Your task to perform on an android device: Empty the shopping cart on target.com. Image 0: 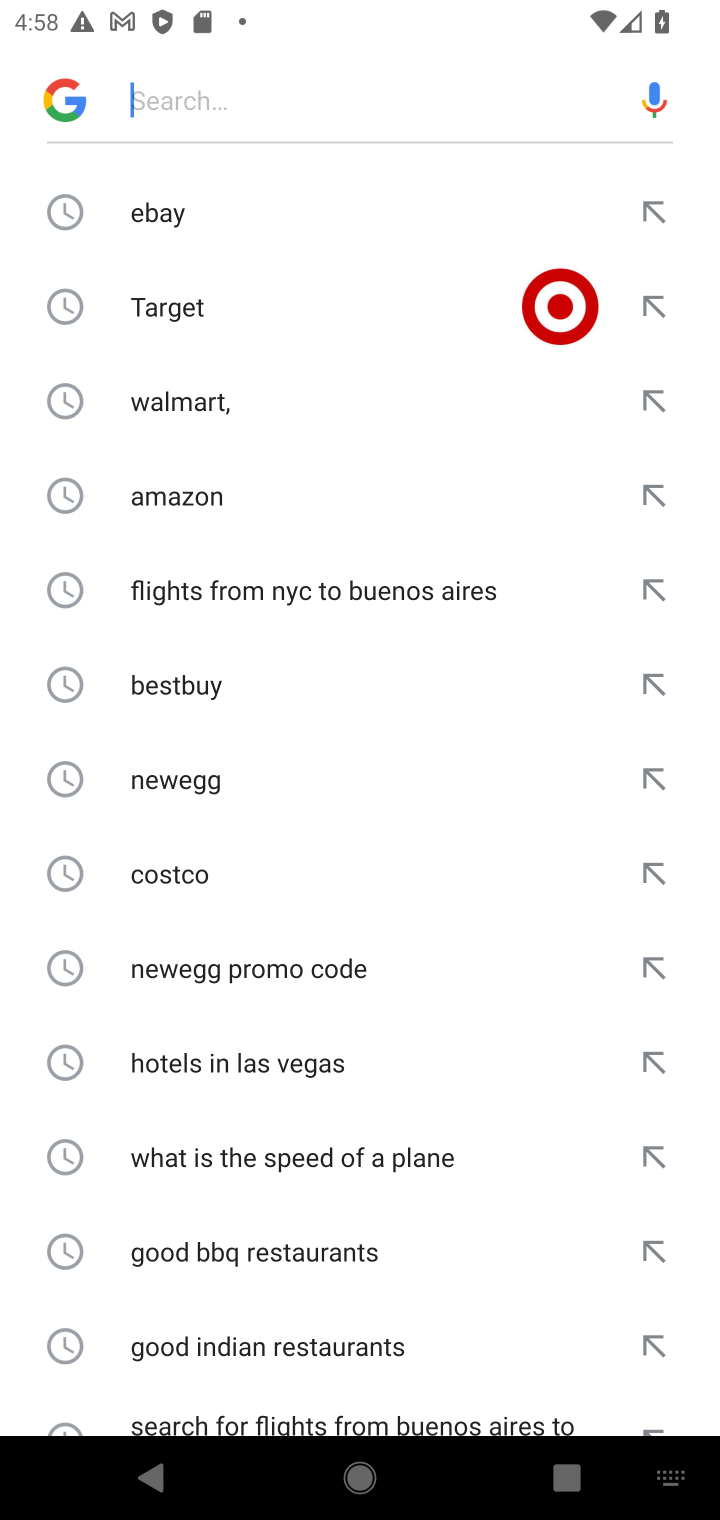
Step 0: press home button
Your task to perform on an android device: Empty the shopping cart on target.com. Image 1: 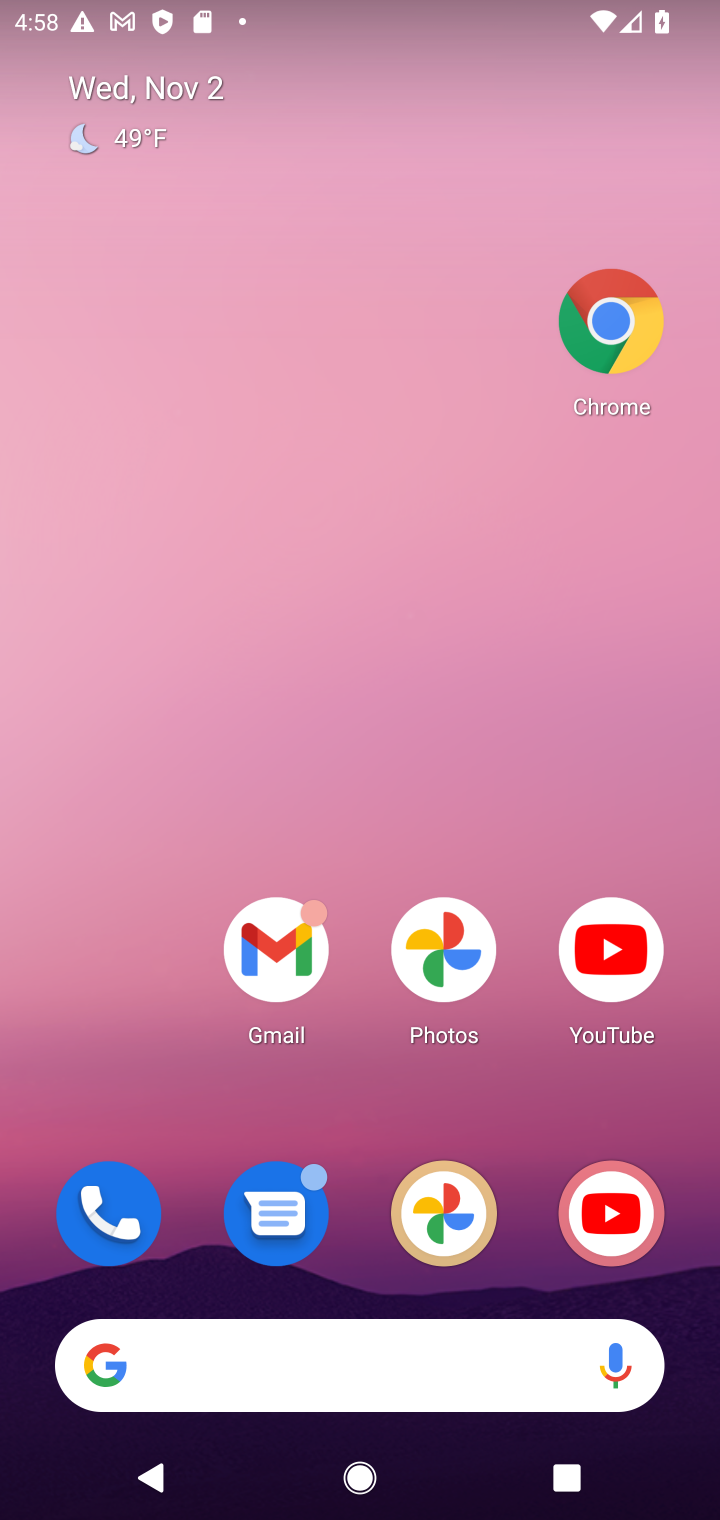
Step 1: drag from (383, 947) to (454, 58)
Your task to perform on an android device: Empty the shopping cart on target.com. Image 2: 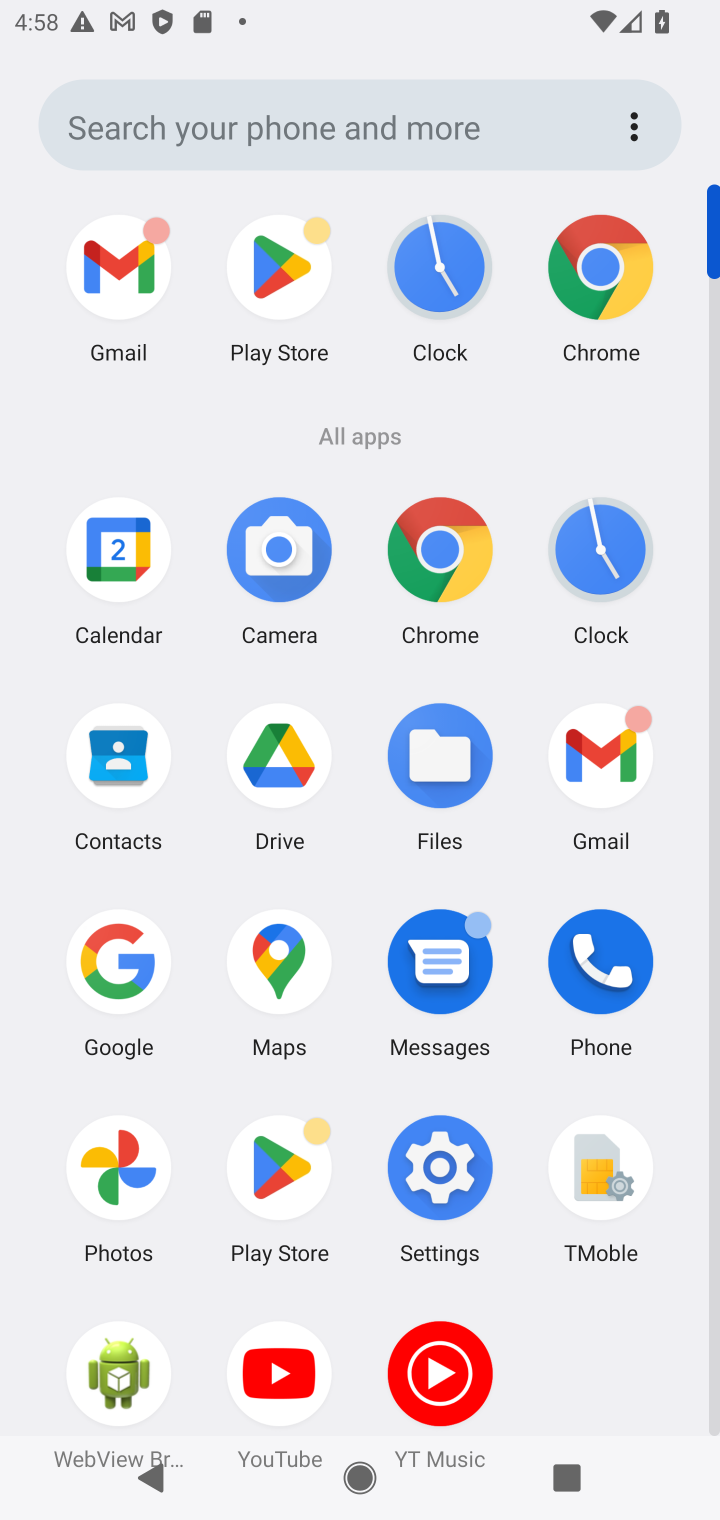
Step 2: click (95, 936)
Your task to perform on an android device: Empty the shopping cart on target.com. Image 3: 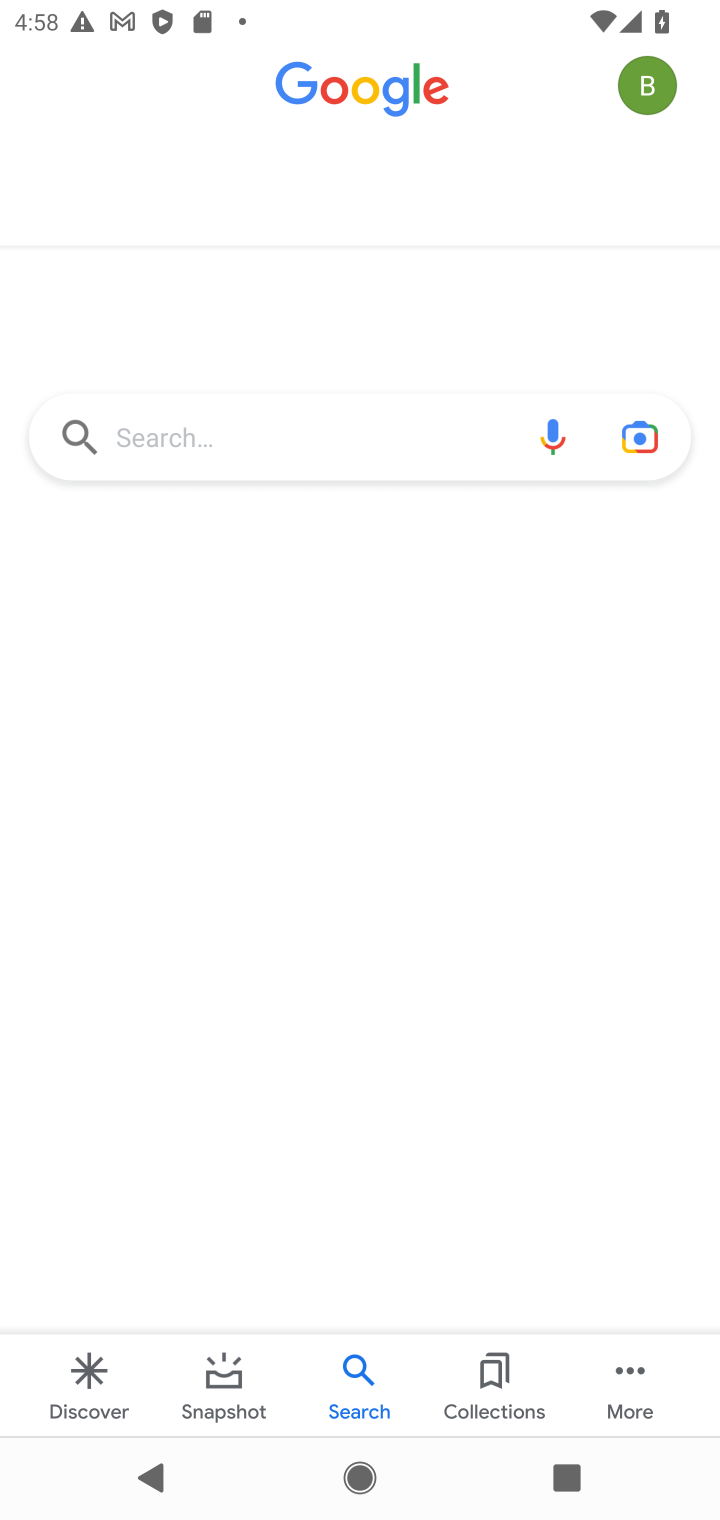
Step 3: click (355, 443)
Your task to perform on an android device: Empty the shopping cart on target.com. Image 4: 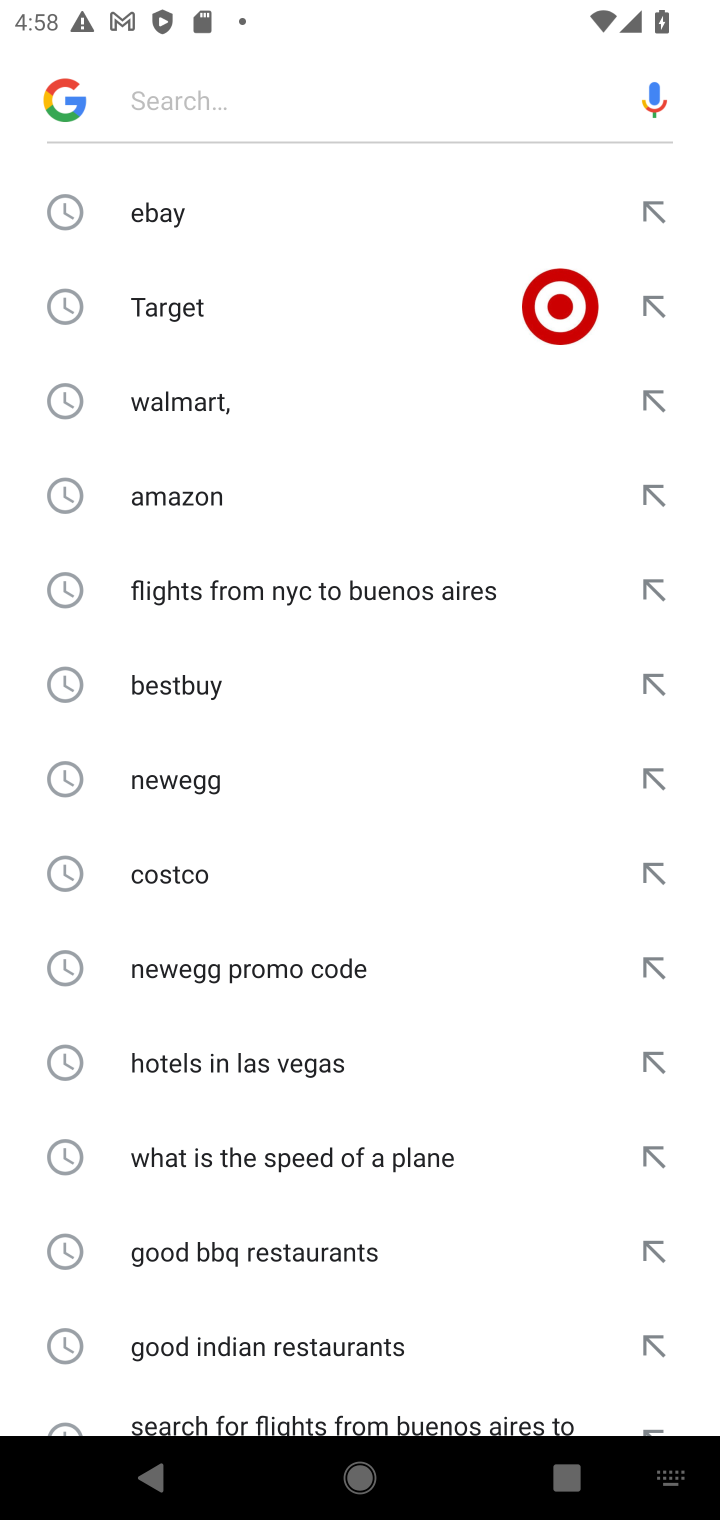
Step 4: type "target.com"
Your task to perform on an android device: Empty the shopping cart on target.com. Image 5: 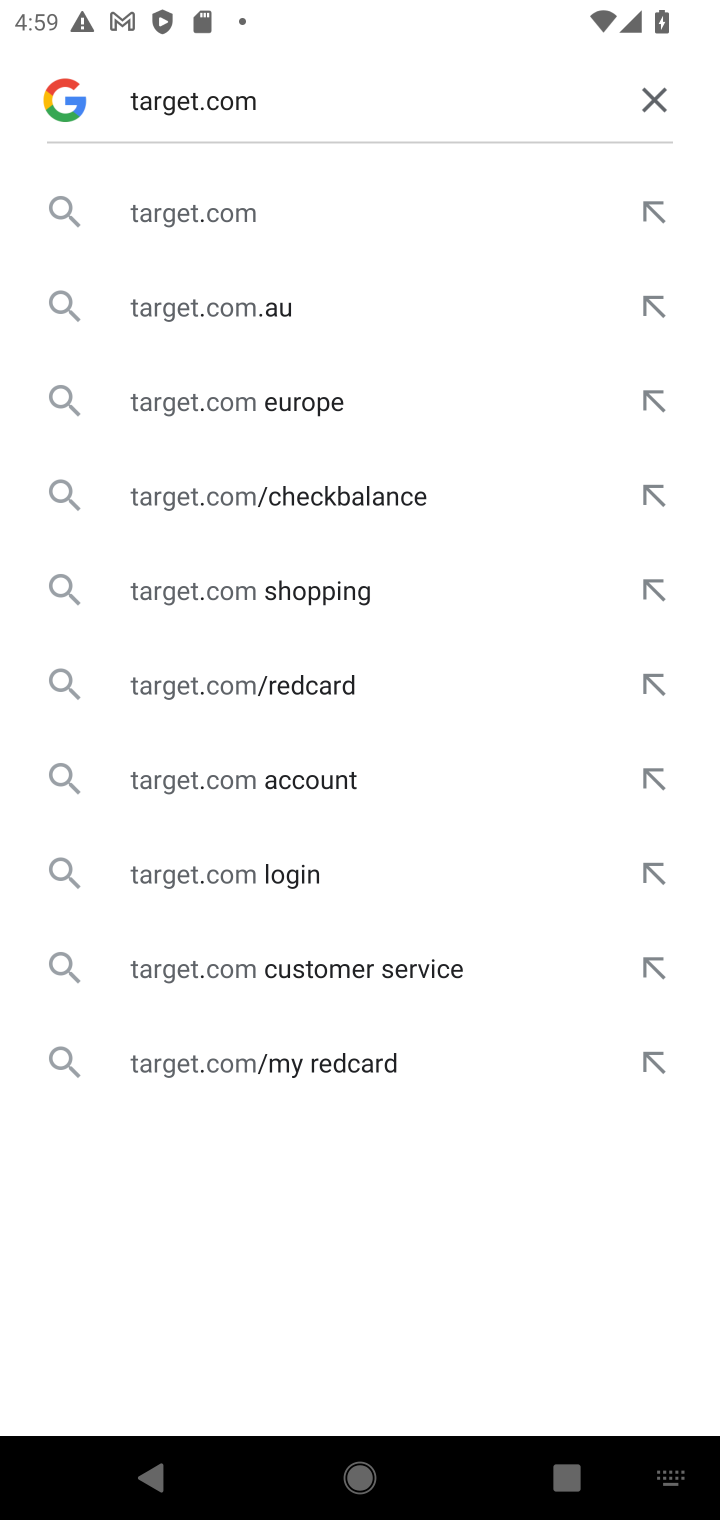
Step 5: click (304, 234)
Your task to perform on an android device: Empty the shopping cart on target.com. Image 6: 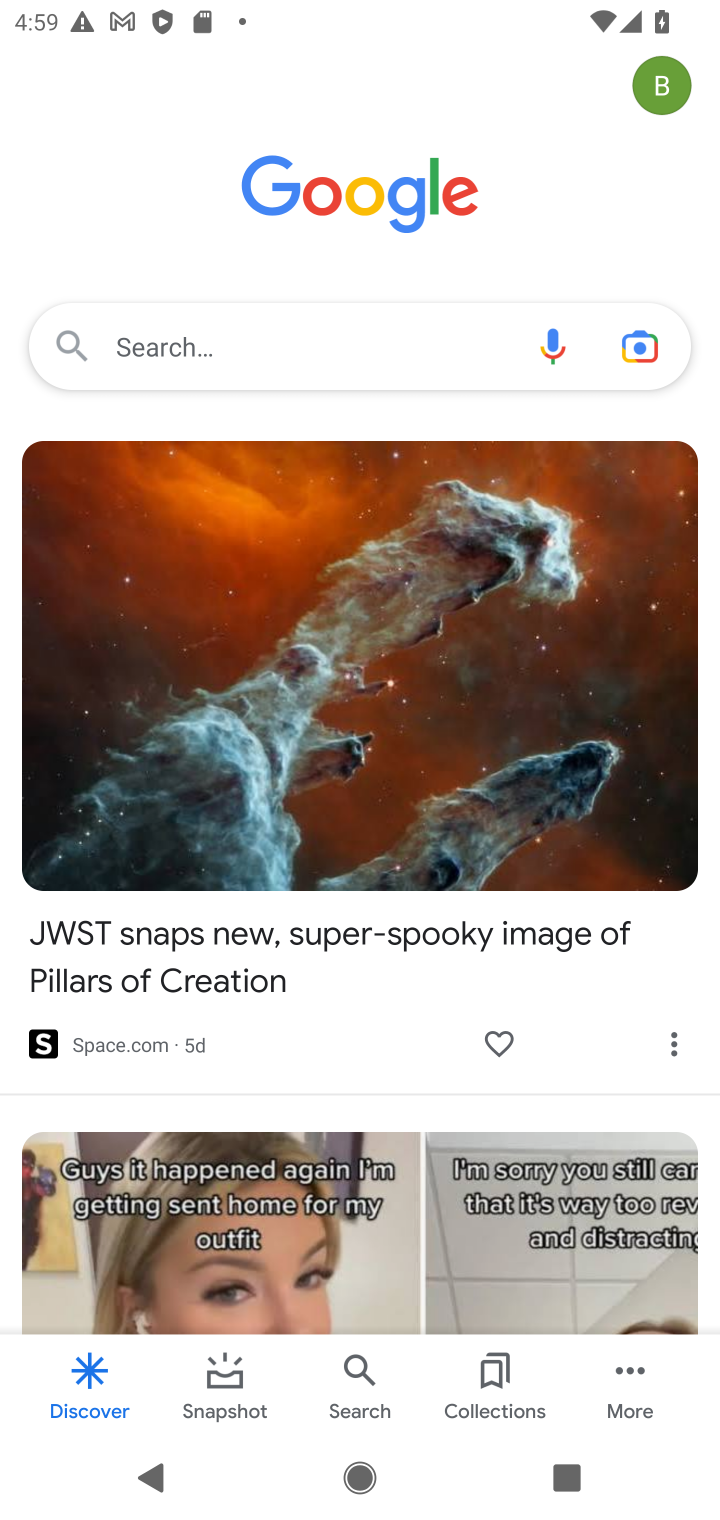
Step 6: click (235, 371)
Your task to perform on an android device: Empty the shopping cart on target.com. Image 7: 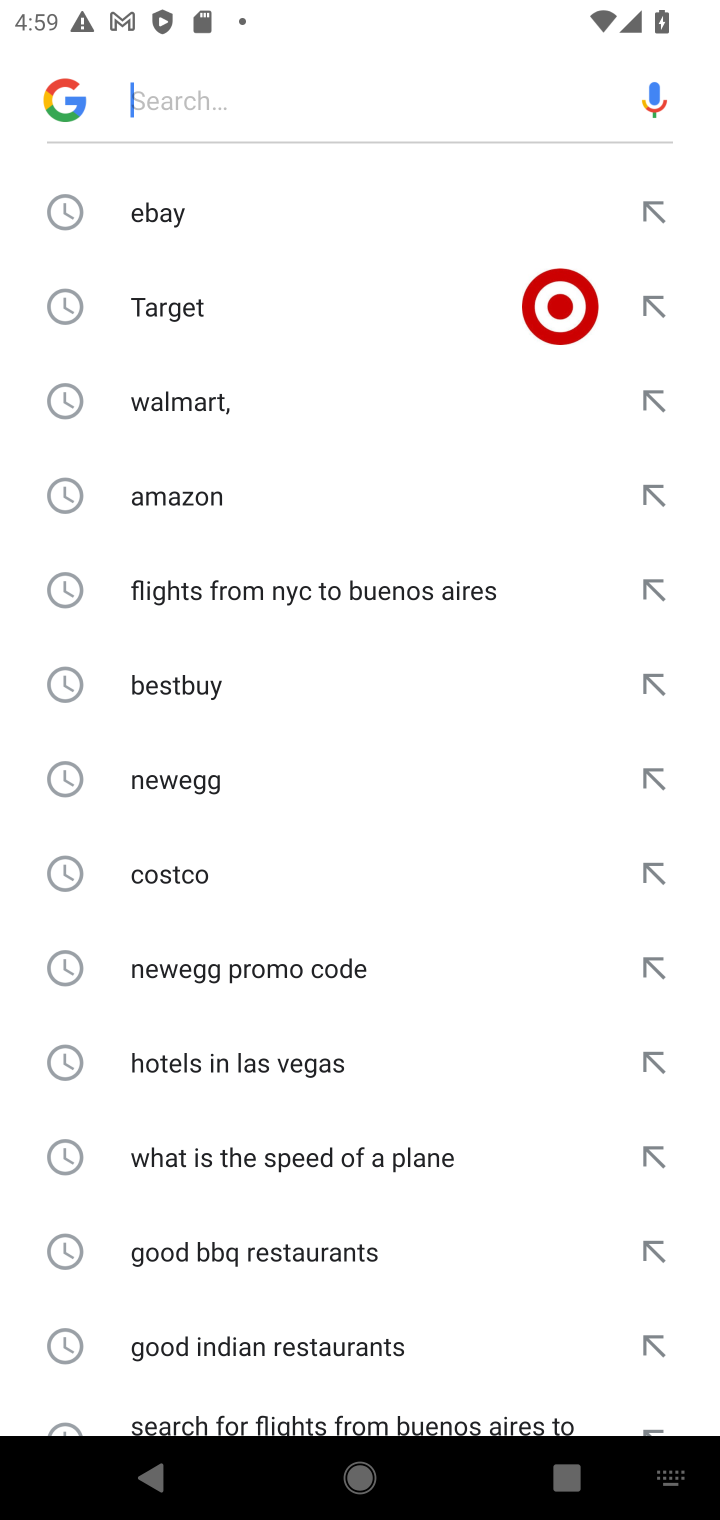
Step 7: click (353, 303)
Your task to perform on an android device: Empty the shopping cart on target.com. Image 8: 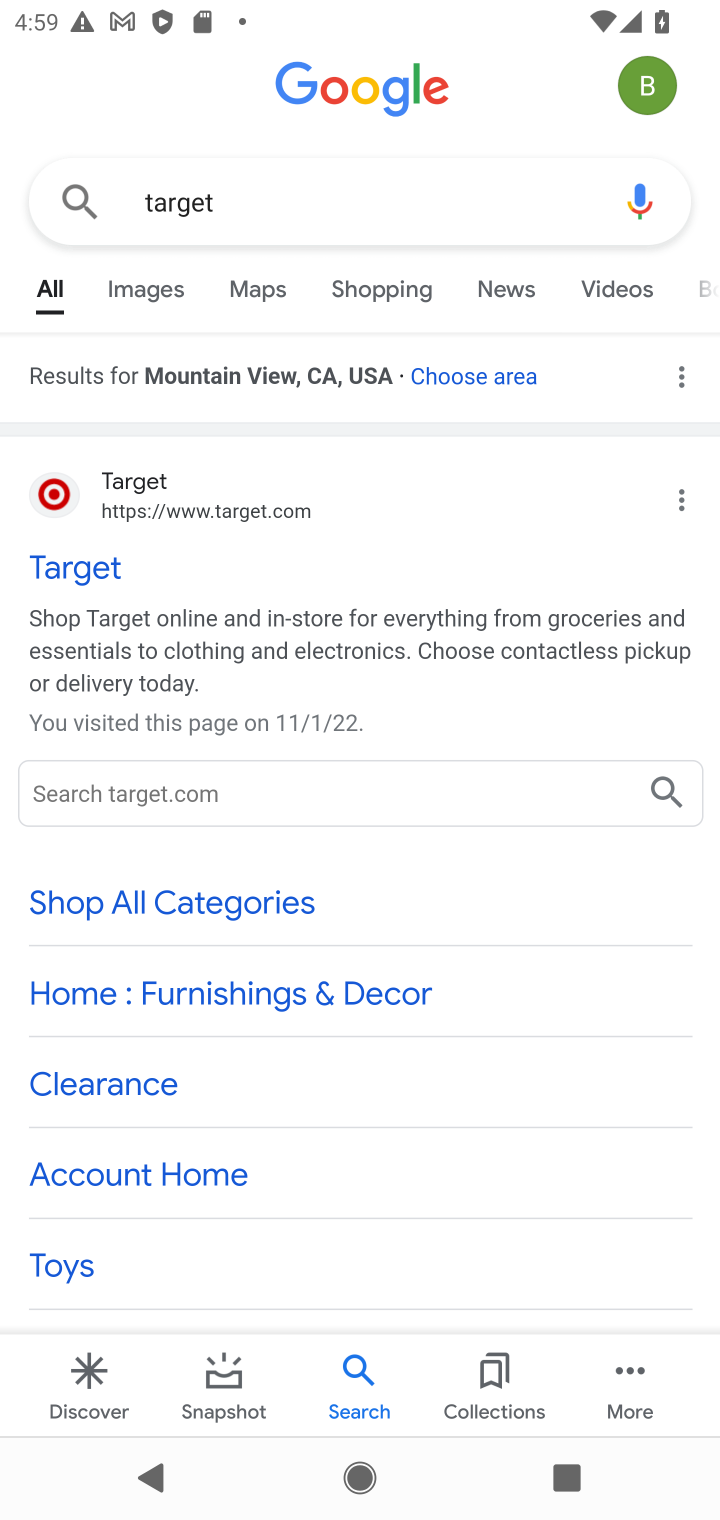
Step 8: click (99, 575)
Your task to perform on an android device: Empty the shopping cart on target.com. Image 9: 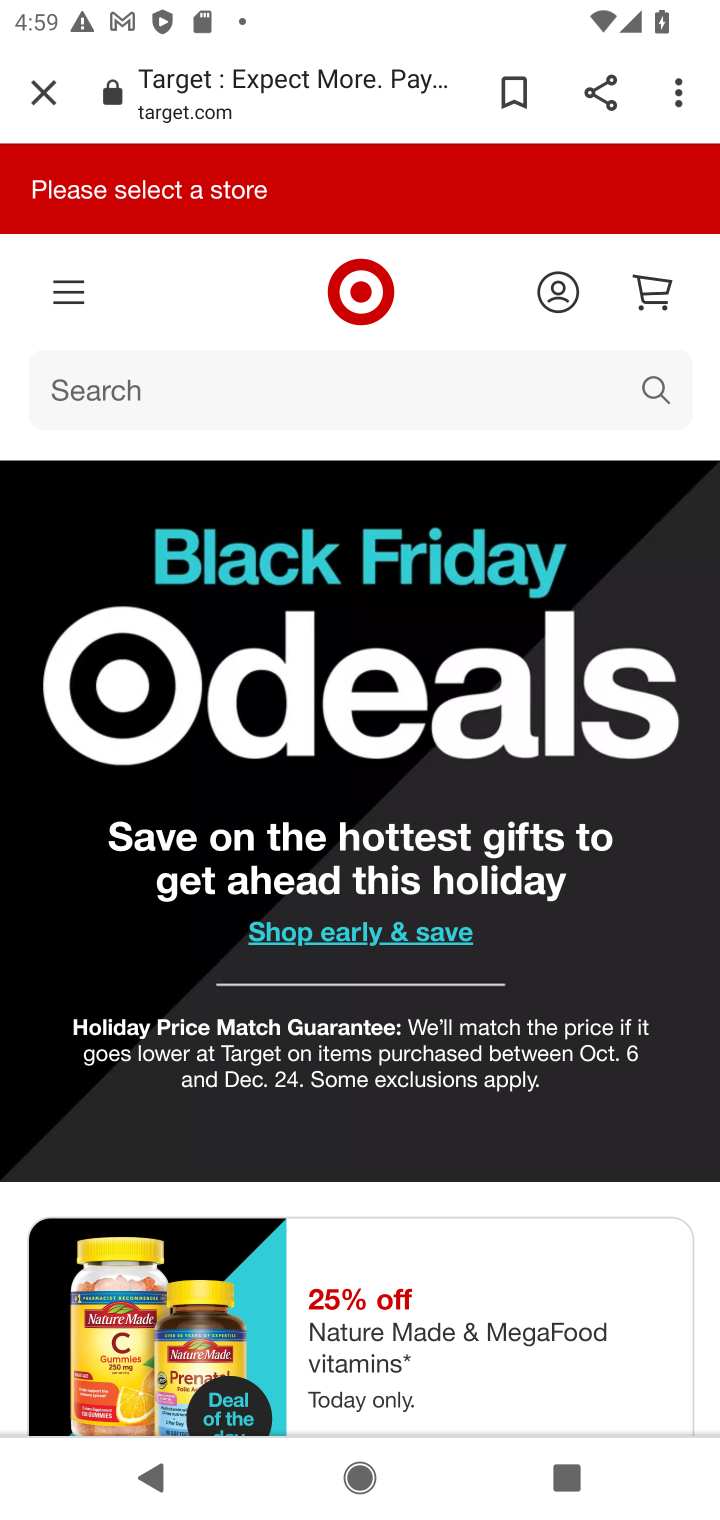
Step 9: click (459, 377)
Your task to perform on an android device: Empty the shopping cart on target.com. Image 10: 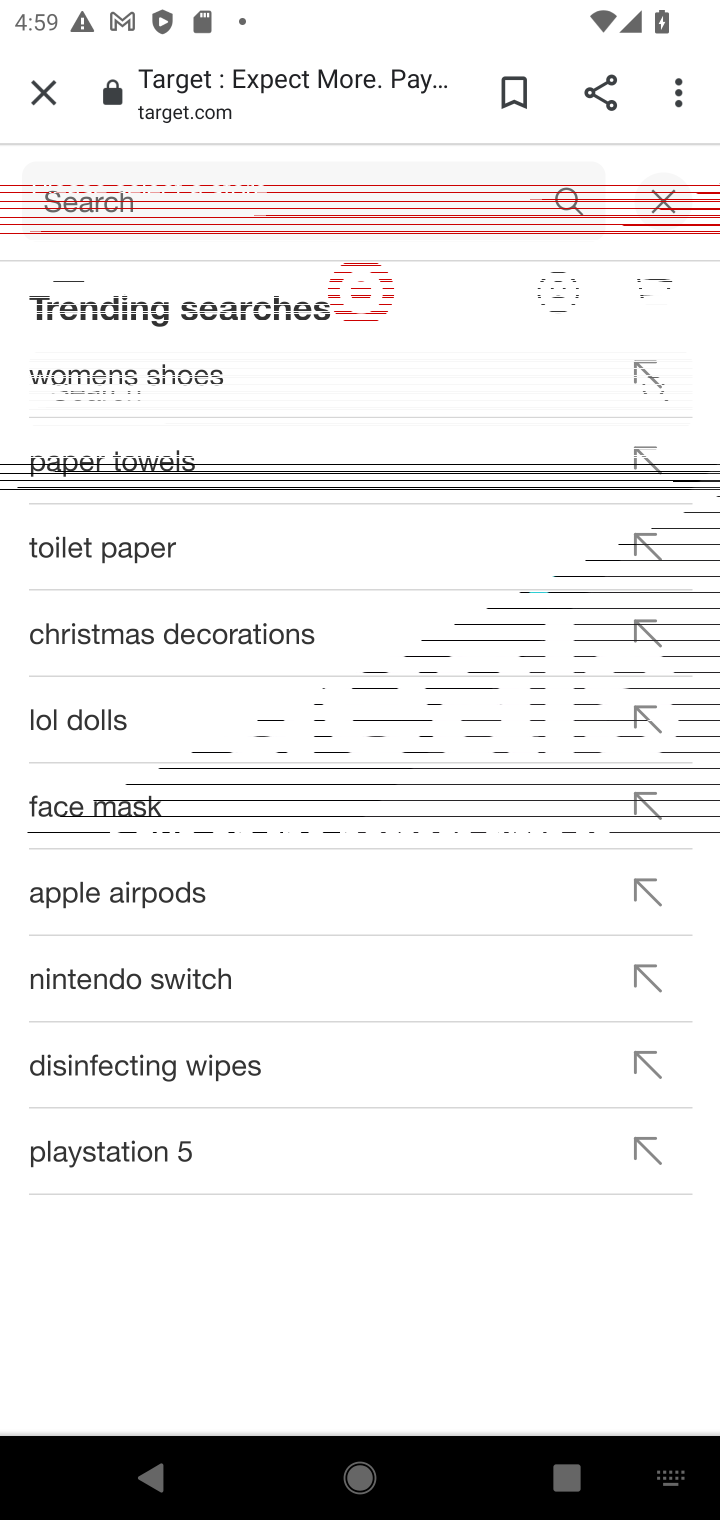
Step 10: click (659, 197)
Your task to perform on an android device: Empty the shopping cart on target.com. Image 11: 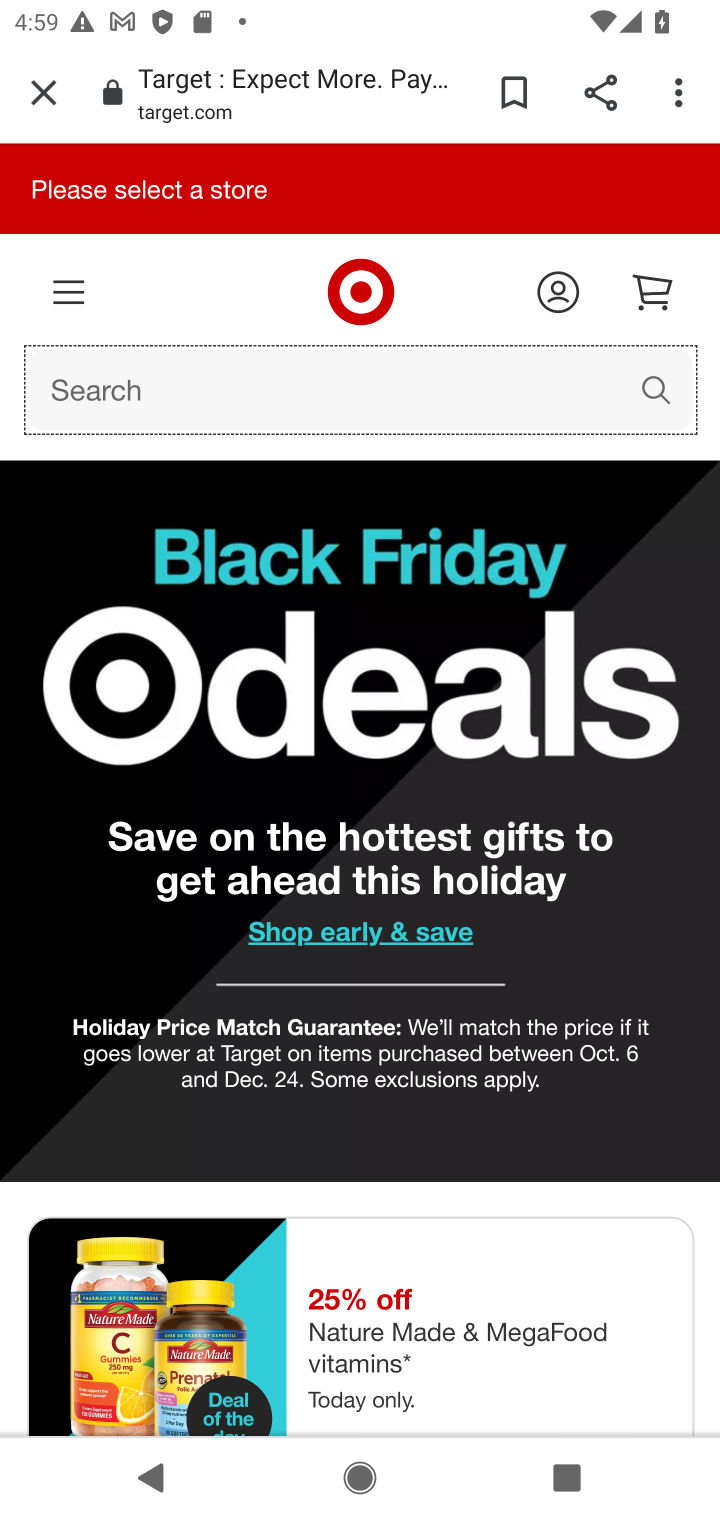
Step 11: click (654, 312)
Your task to perform on an android device: Empty the shopping cart on target.com. Image 12: 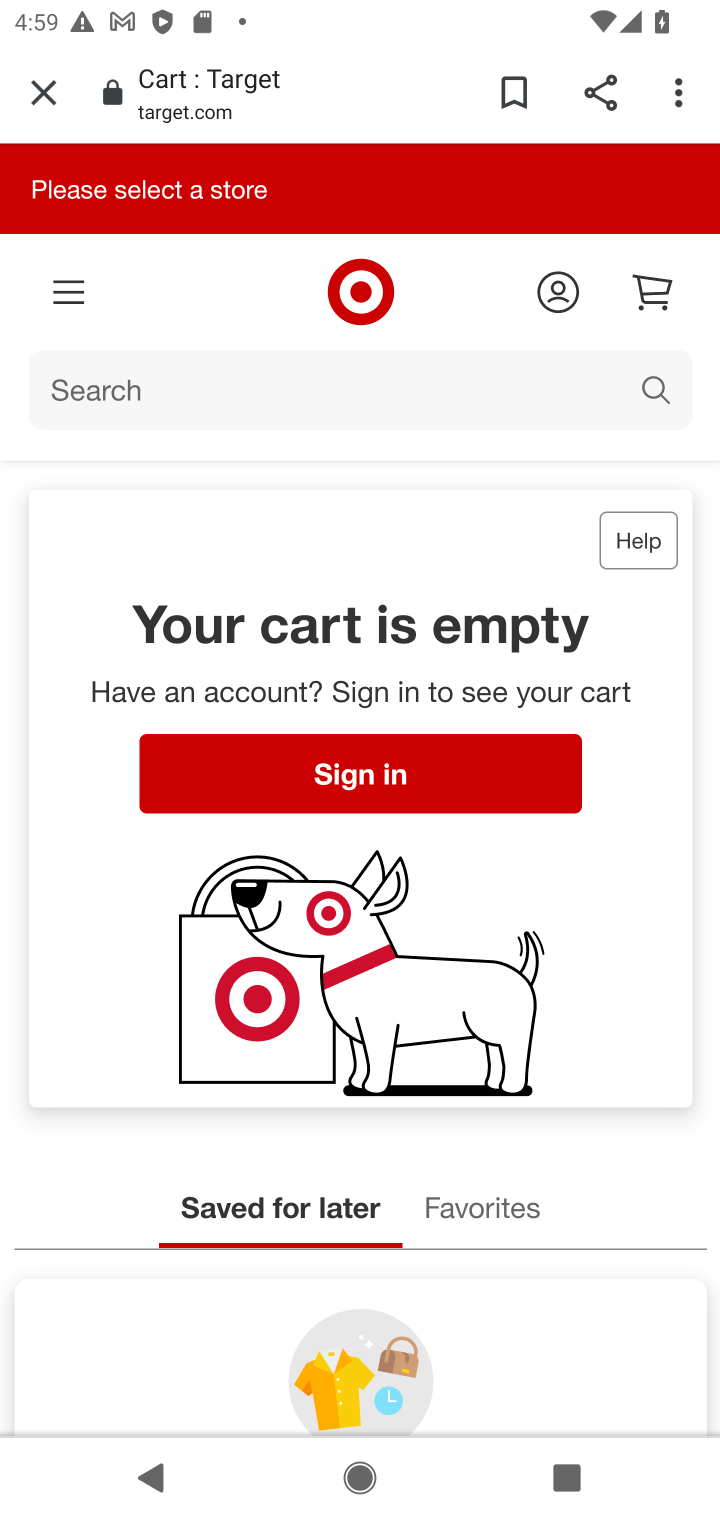
Step 12: task complete